Your task to perform on an android device: Open internet settings Image 0: 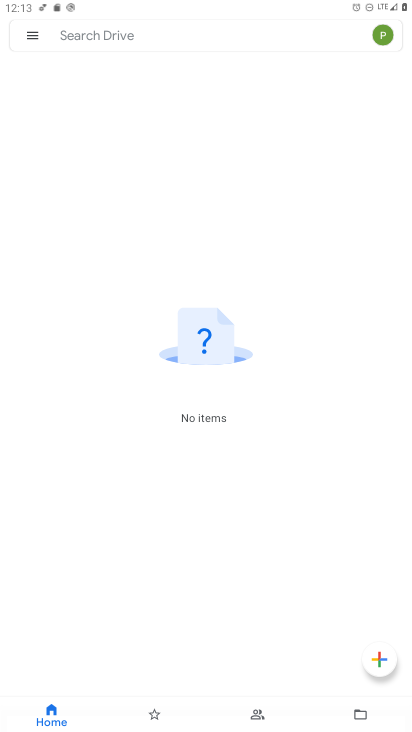
Step 0: press home button
Your task to perform on an android device: Open internet settings Image 1: 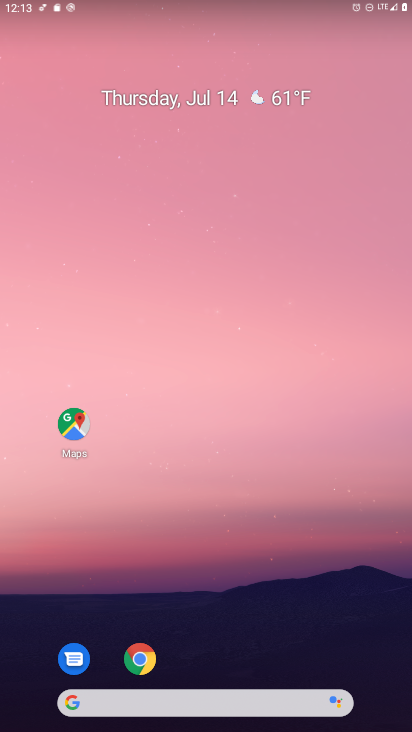
Step 1: drag from (374, 625) to (350, 124)
Your task to perform on an android device: Open internet settings Image 2: 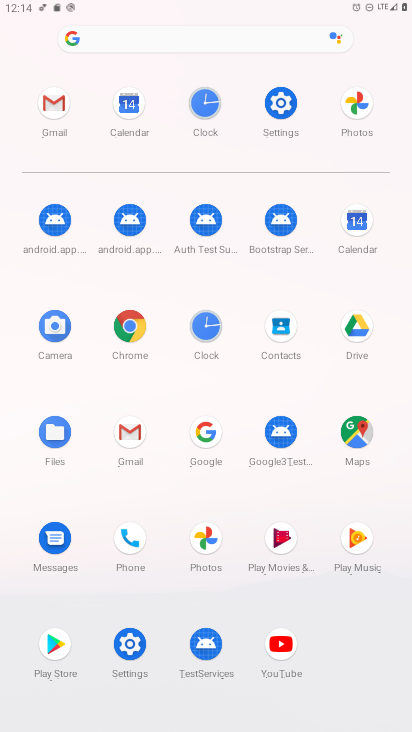
Step 2: click (132, 644)
Your task to perform on an android device: Open internet settings Image 3: 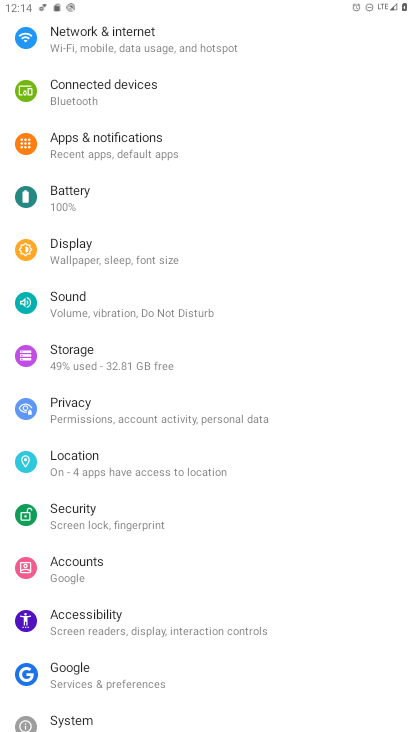
Step 3: click (88, 36)
Your task to perform on an android device: Open internet settings Image 4: 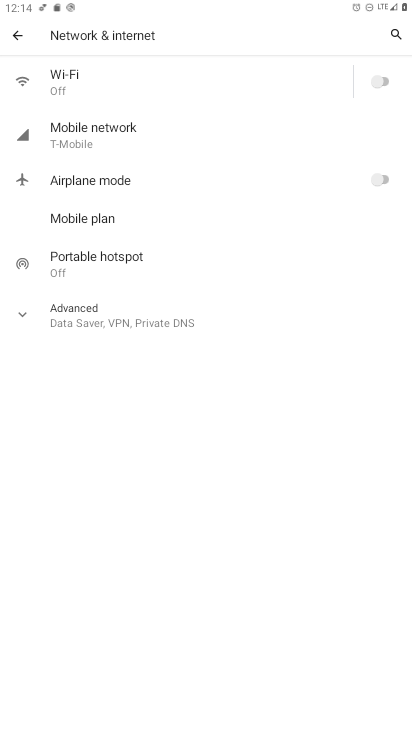
Step 4: click (56, 82)
Your task to perform on an android device: Open internet settings Image 5: 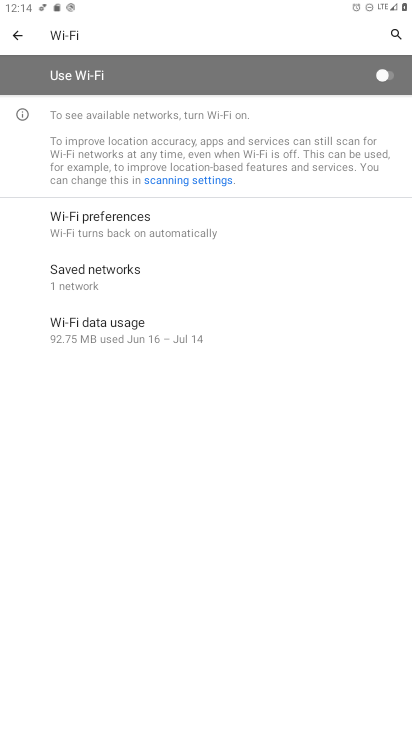
Step 5: task complete